Your task to perform on an android device: turn off airplane mode Image 0: 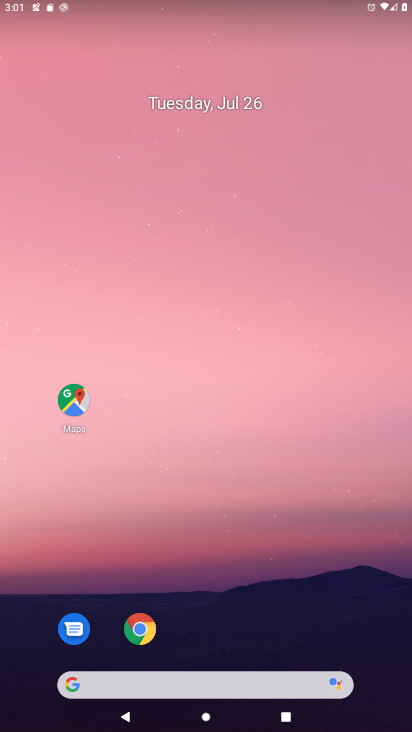
Step 0: drag from (194, 636) to (190, 170)
Your task to perform on an android device: turn off airplane mode Image 1: 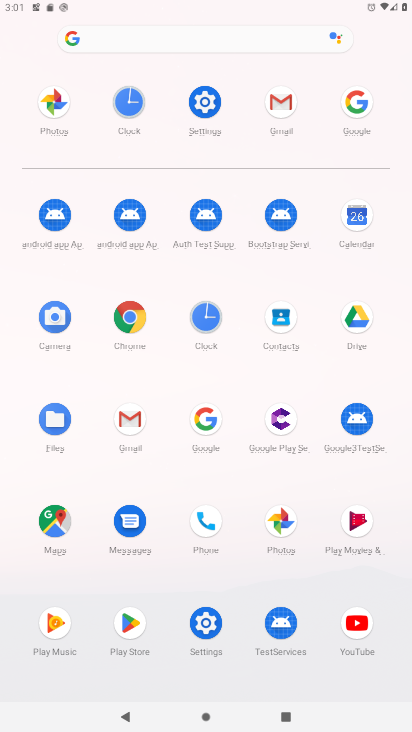
Step 1: click (226, 123)
Your task to perform on an android device: turn off airplane mode Image 2: 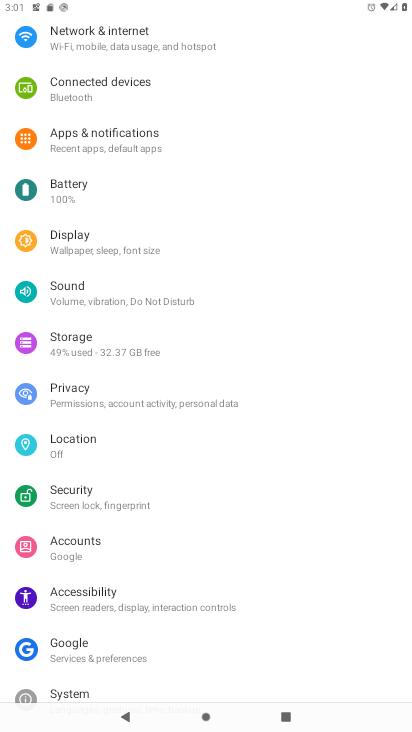
Step 2: click (150, 41)
Your task to perform on an android device: turn off airplane mode Image 3: 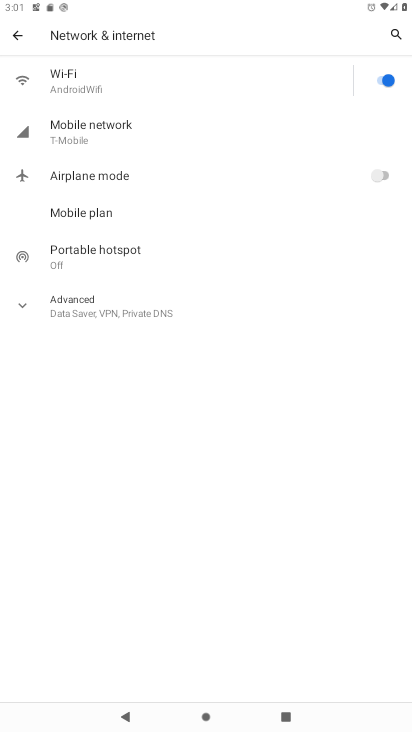
Step 3: task complete